Your task to perform on an android device: Search for 3d printed chess sets on Etsy. Image 0: 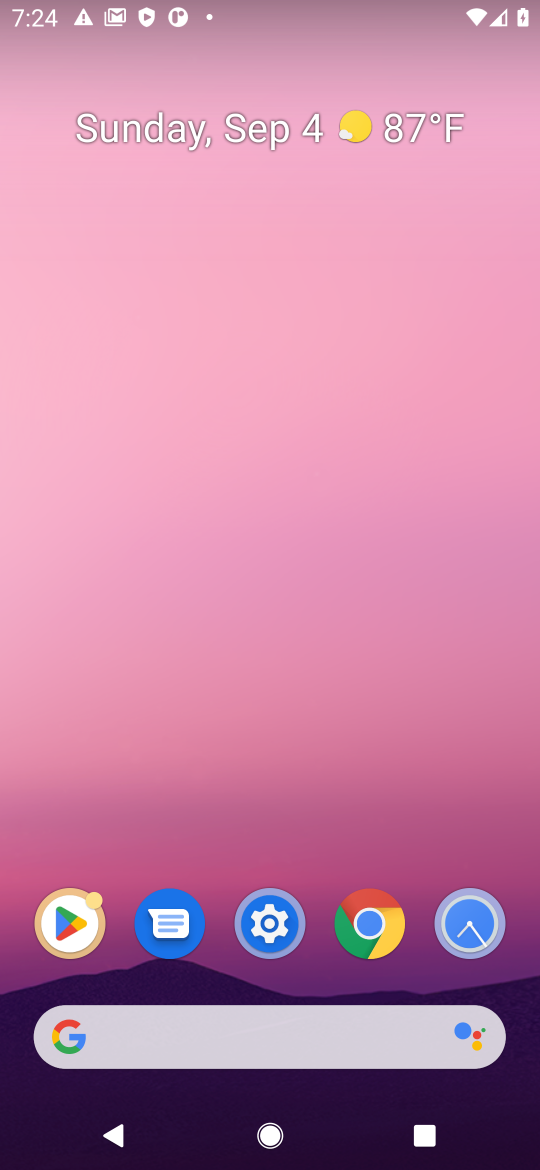
Step 0: press home button
Your task to perform on an android device: Search for 3d printed chess sets on Etsy. Image 1: 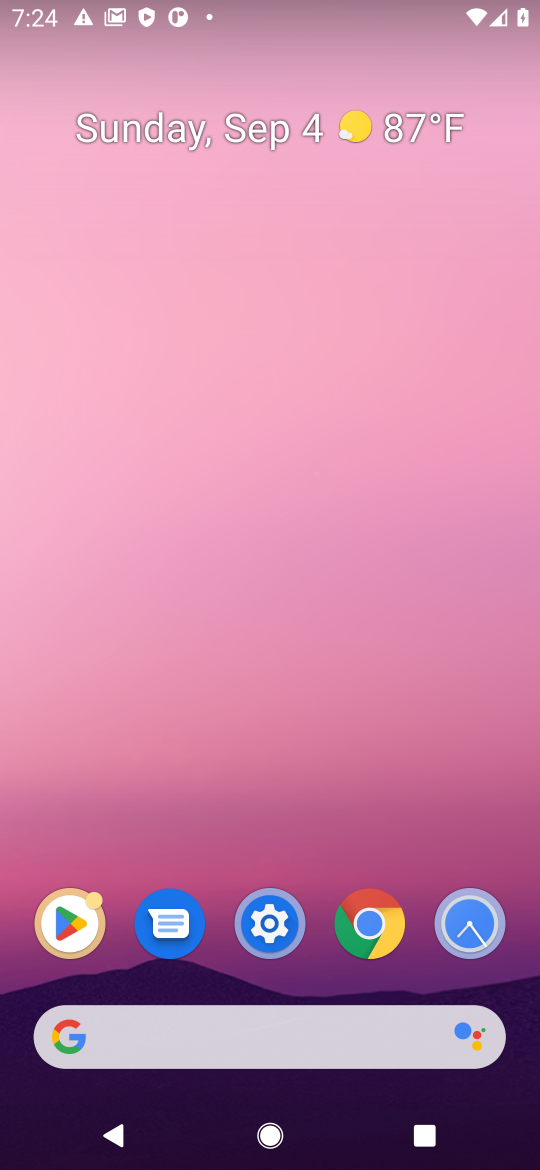
Step 1: click (399, 1031)
Your task to perform on an android device: Search for 3d printed chess sets on Etsy. Image 2: 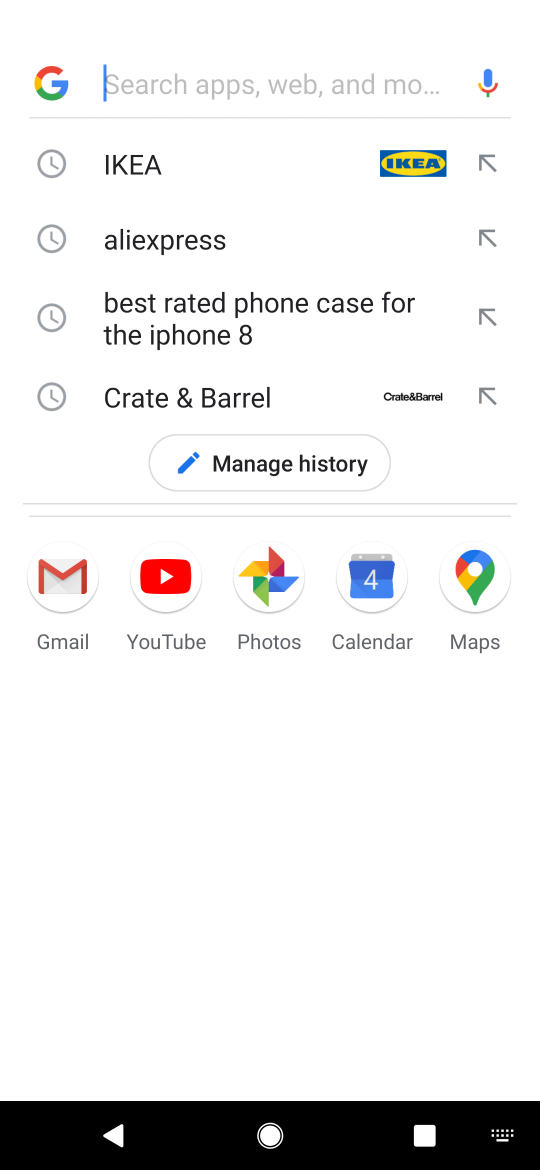
Step 2: press enter
Your task to perform on an android device: Search for 3d printed chess sets on Etsy. Image 3: 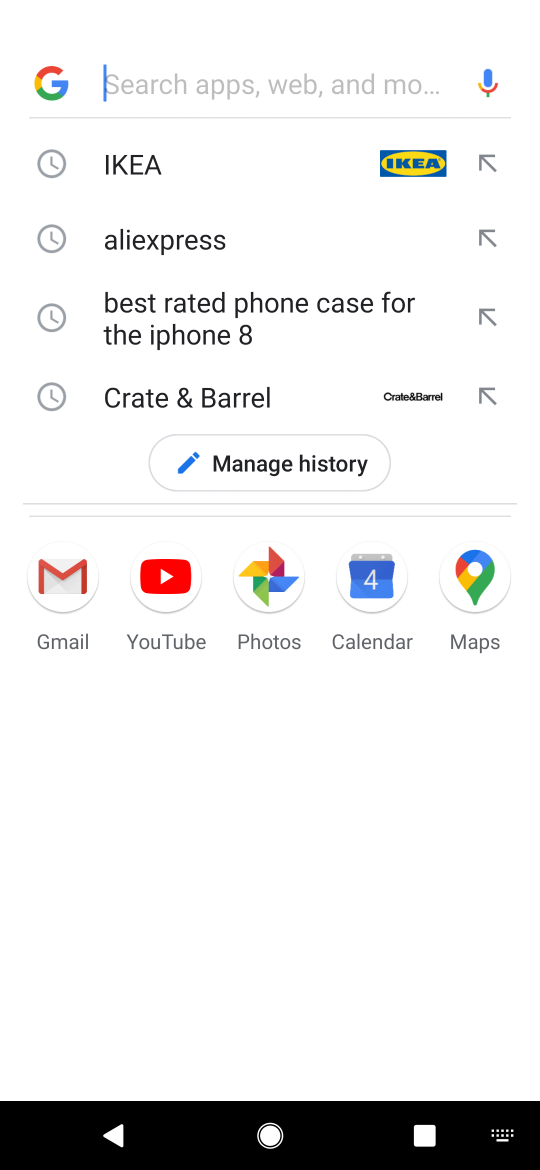
Step 3: type "etsy"
Your task to perform on an android device: Search for 3d printed chess sets on Etsy. Image 4: 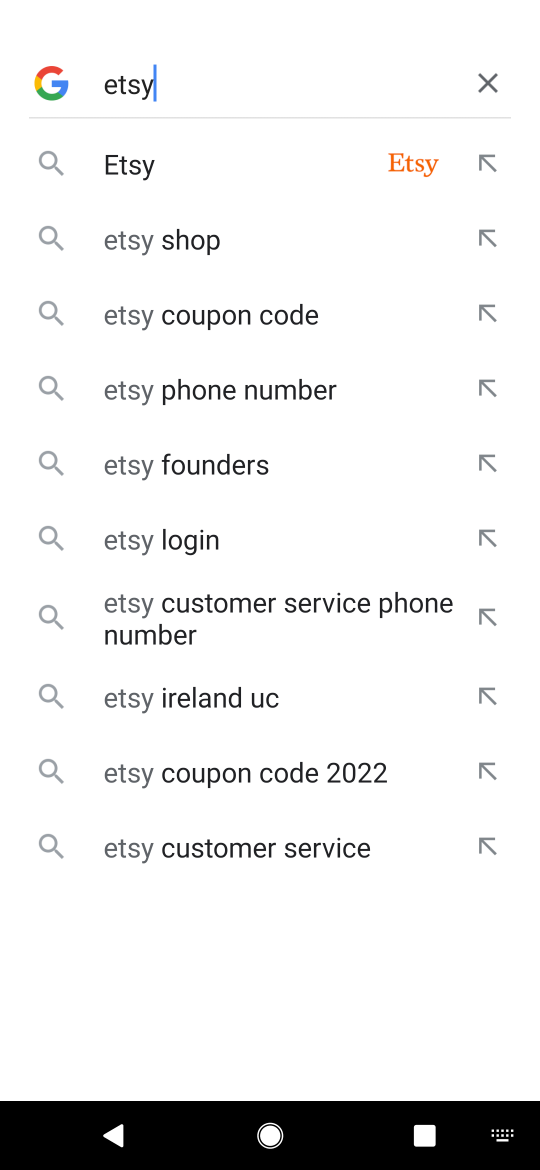
Step 4: click (176, 155)
Your task to perform on an android device: Search for 3d printed chess sets on Etsy. Image 5: 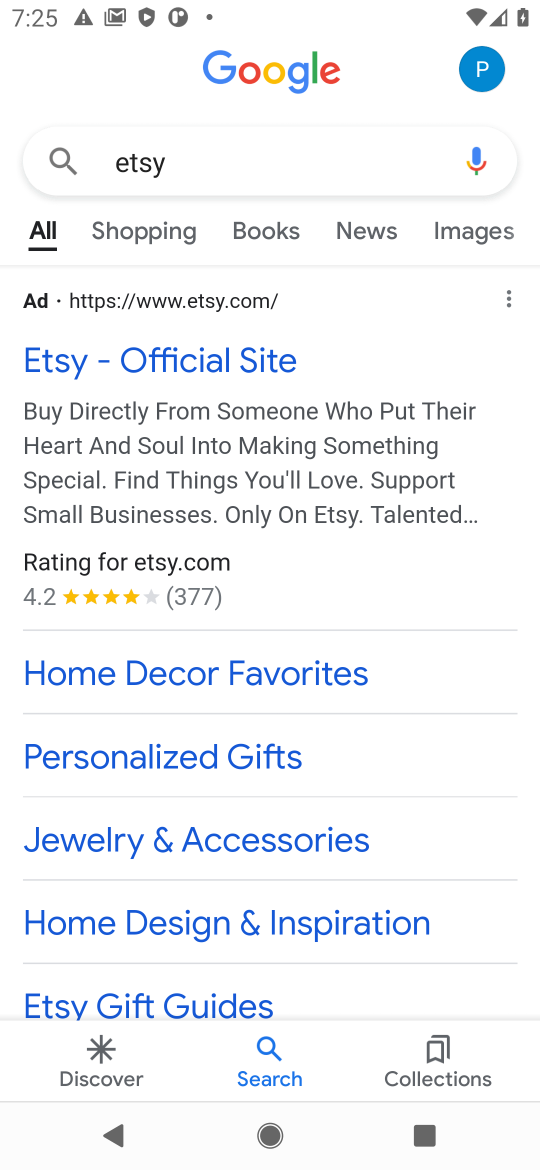
Step 5: click (184, 359)
Your task to perform on an android device: Search for 3d printed chess sets on Etsy. Image 6: 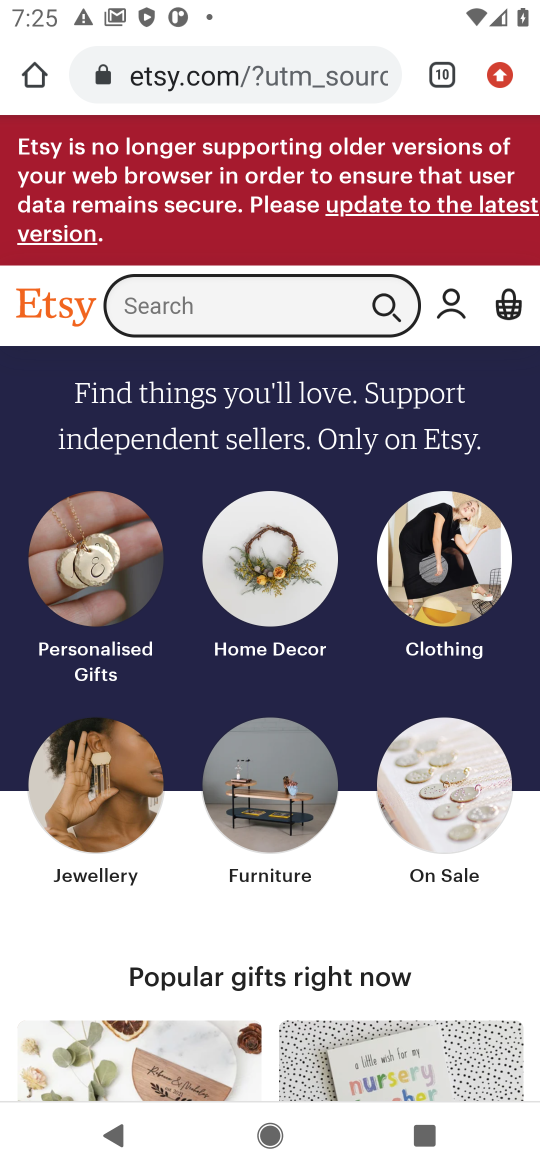
Step 6: click (263, 308)
Your task to perform on an android device: Search for 3d printed chess sets on Etsy. Image 7: 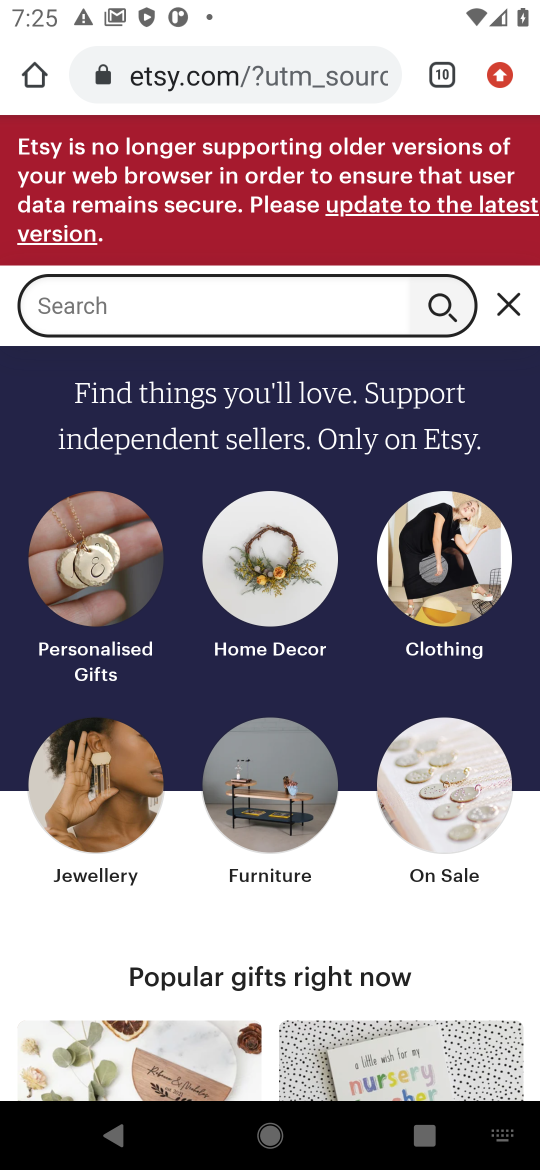
Step 7: press enter
Your task to perform on an android device: Search for 3d printed chess sets on Etsy. Image 8: 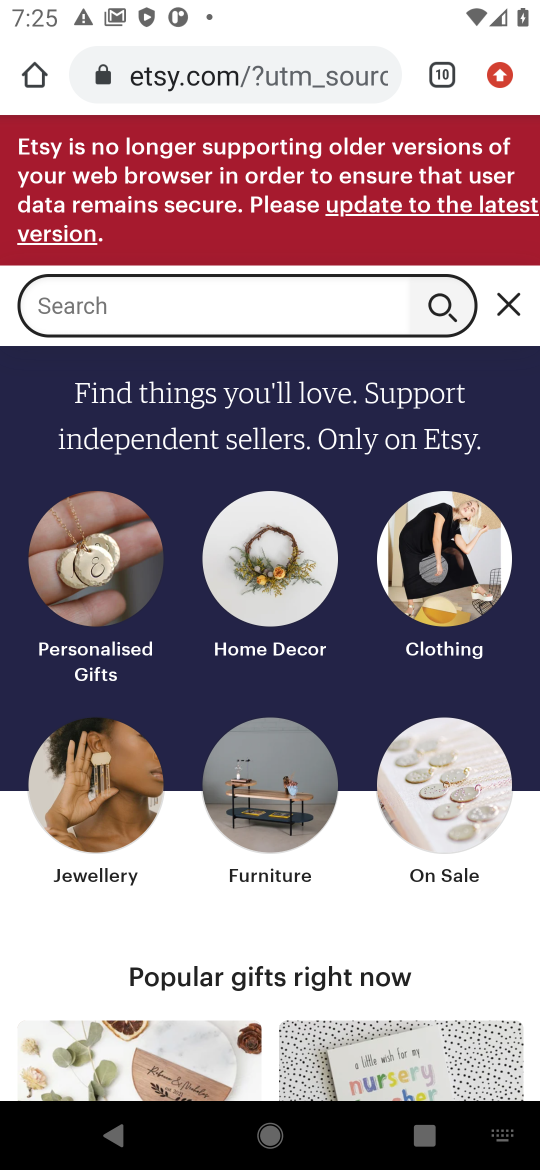
Step 8: type "3d printed chess sets"
Your task to perform on an android device: Search for 3d printed chess sets on Etsy. Image 9: 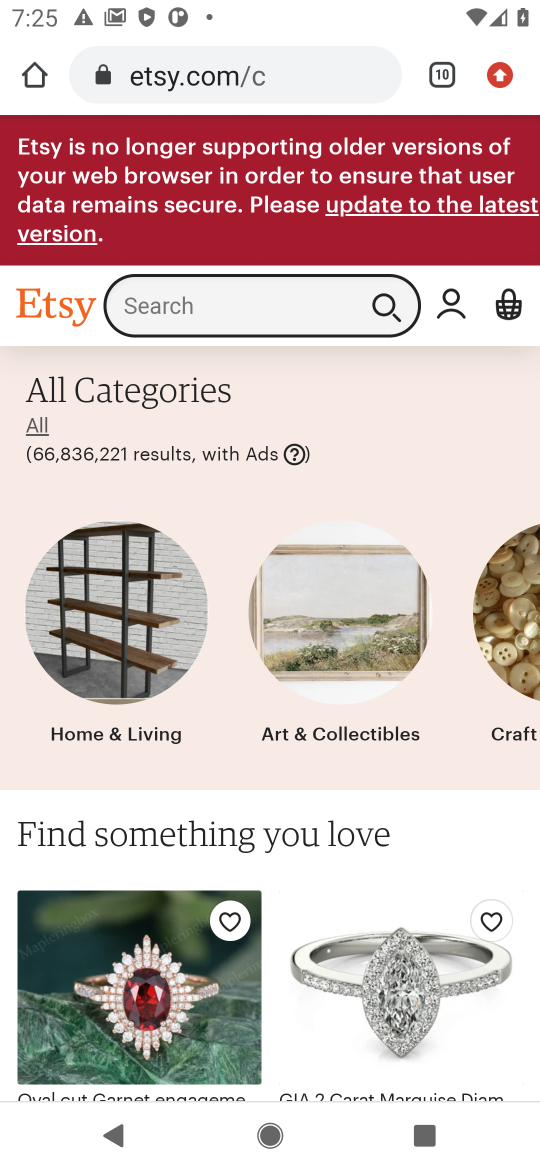
Step 9: click (242, 298)
Your task to perform on an android device: Search for 3d printed chess sets on Etsy. Image 10: 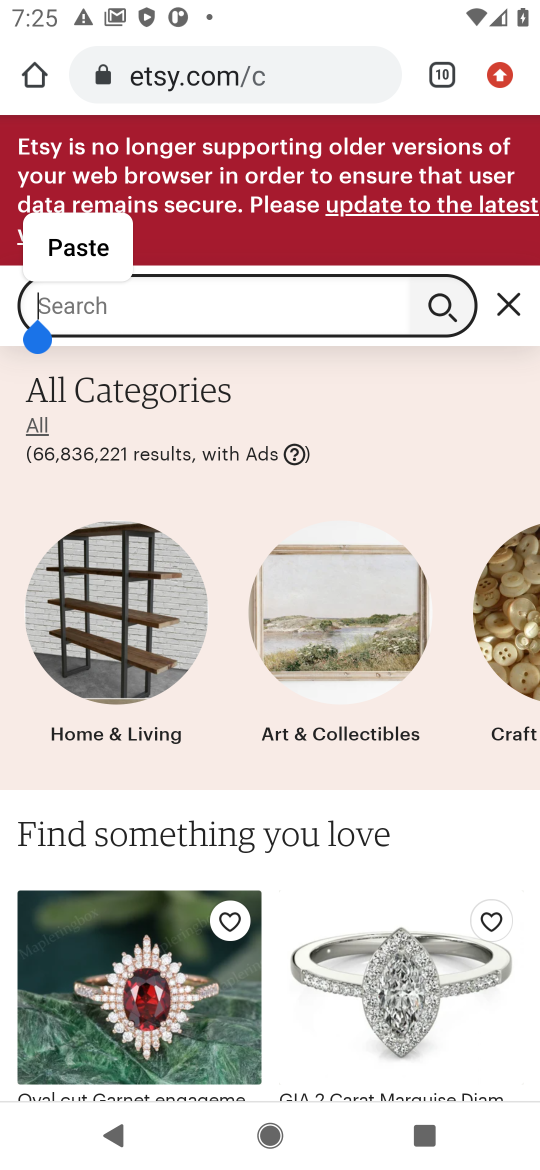
Step 10: type "3d printed chess sets"
Your task to perform on an android device: Search for 3d printed chess sets on Etsy. Image 11: 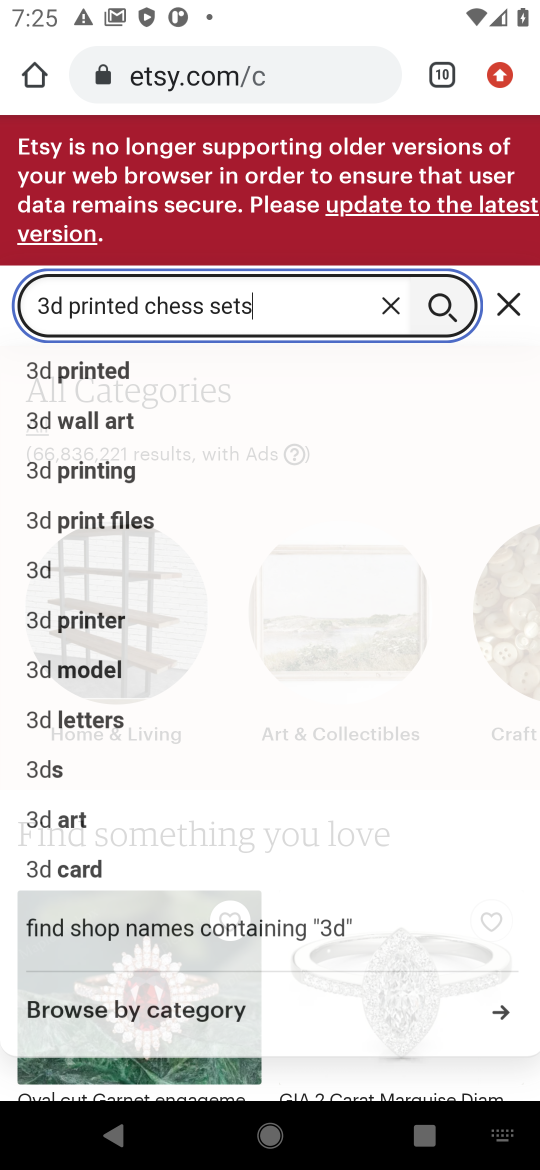
Step 11: press enter
Your task to perform on an android device: Search for 3d printed chess sets on Etsy. Image 12: 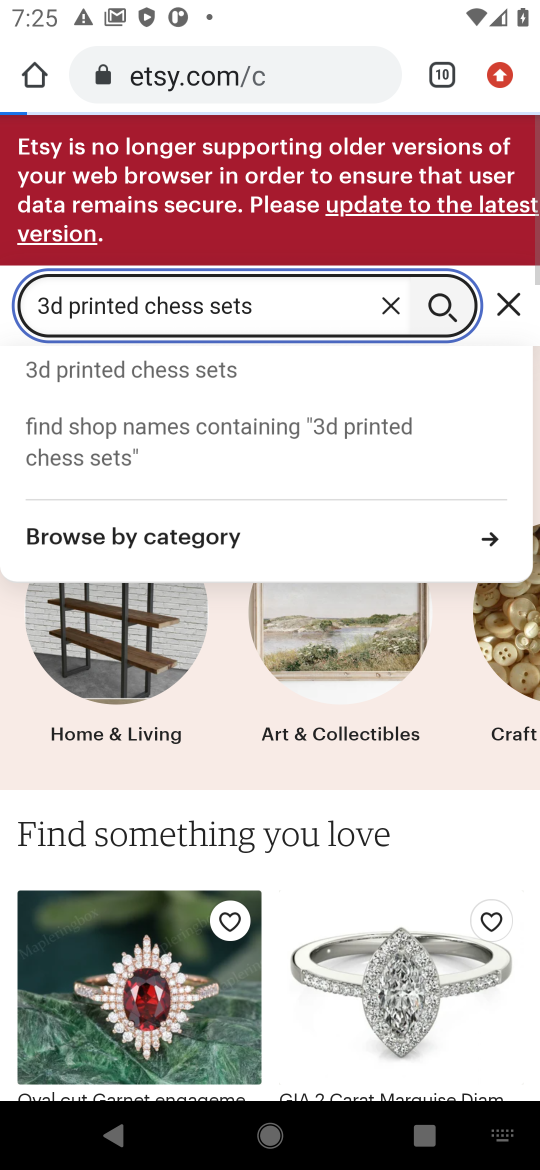
Step 12: click (437, 293)
Your task to perform on an android device: Search for 3d printed chess sets on Etsy. Image 13: 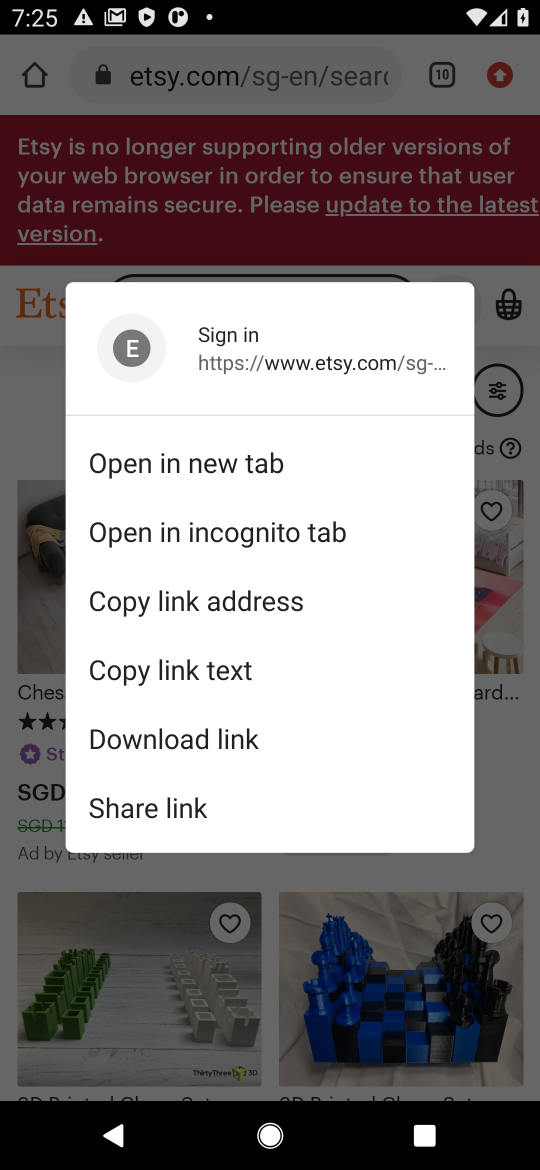
Step 13: click (533, 812)
Your task to perform on an android device: Search for 3d printed chess sets on Etsy. Image 14: 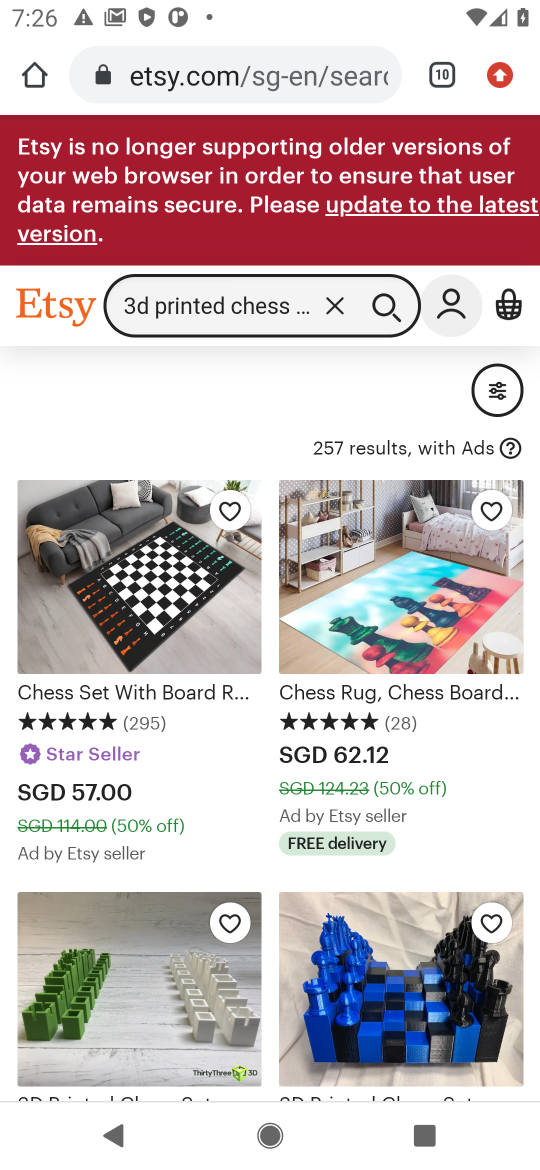
Step 14: task complete